Your task to perform on an android device: Open calendar and show me the third week of next month Image 0: 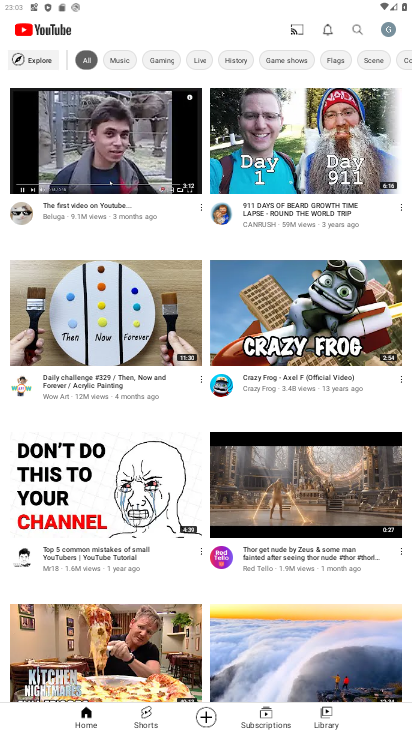
Step 0: press home button
Your task to perform on an android device: Open calendar and show me the third week of next month Image 1: 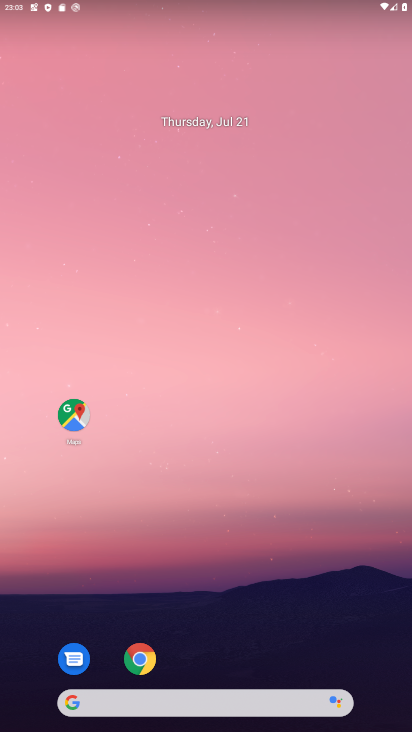
Step 1: drag from (233, 643) to (218, 47)
Your task to perform on an android device: Open calendar and show me the third week of next month Image 2: 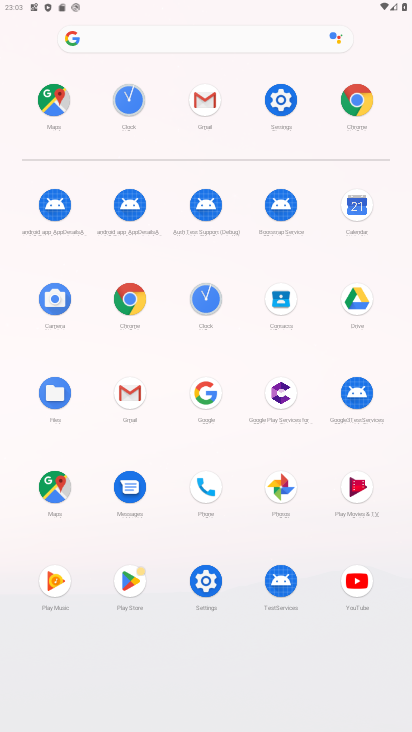
Step 2: click (362, 200)
Your task to perform on an android device: Open calendar and show me the third week of next month Image 3: 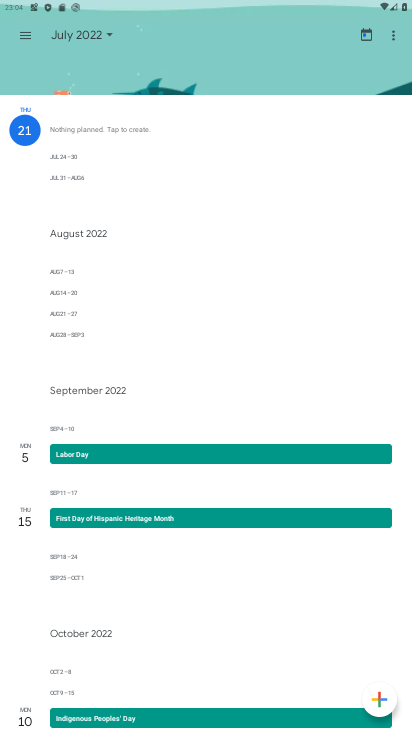
Step 3: click (83, 39)
Your task to perform on an android device: Open calendar and show me the third week of next month Image 4: 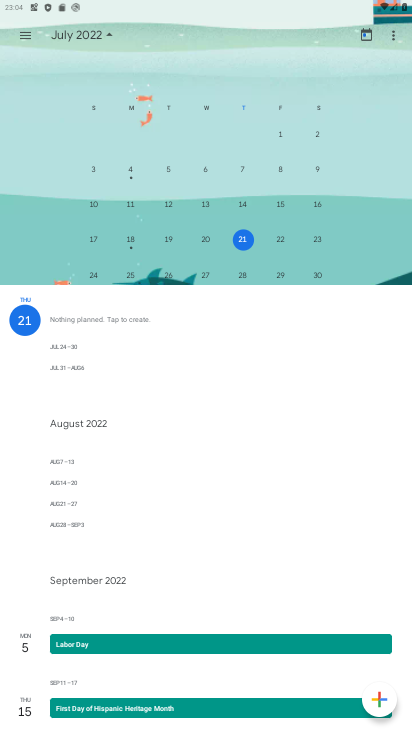
Step 4: drag from (327, 166) to (59, 173)
Your task to perform on an android device: Open calendar and show me the third week of next month Image 5: 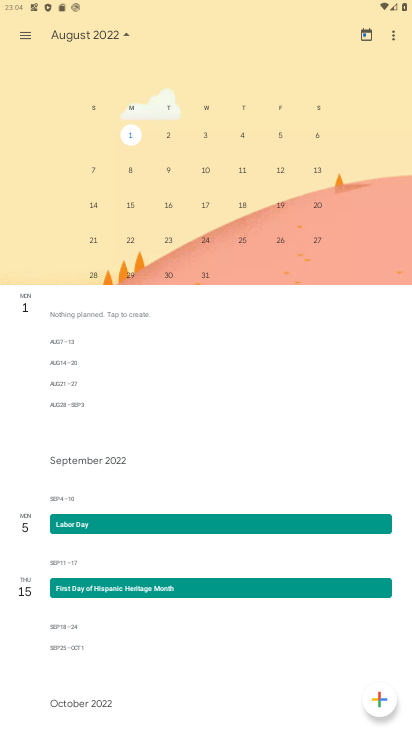
Step 5: click (173, 205)
Your task to perform on an android device: Open calendar and show me the third week of next month Image 6: 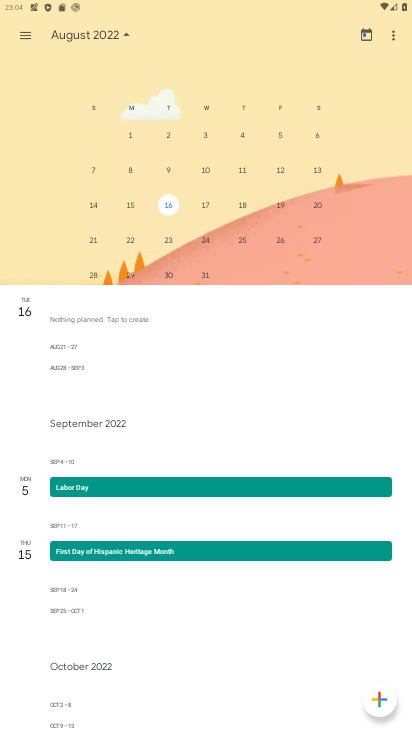
Step 6: click (21, 29)
Your task to perform on an android device: Open calendar and show me the third week of next month Image 7: 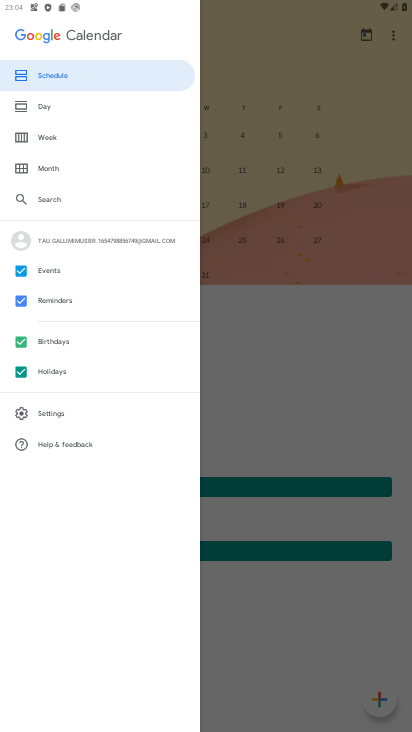
Step 7: click (51, 140)
Your task to perform on an android device: Open calendar and show me the third week of next month Image 8: 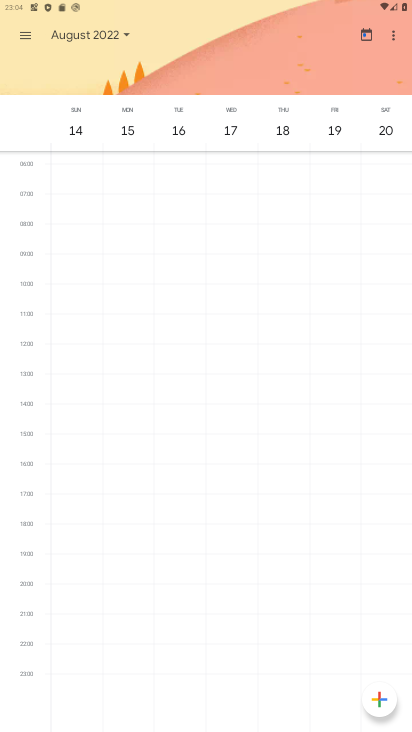
Step 8: task complete